Your task to perform on an android device: change text size in settings app Image 0: 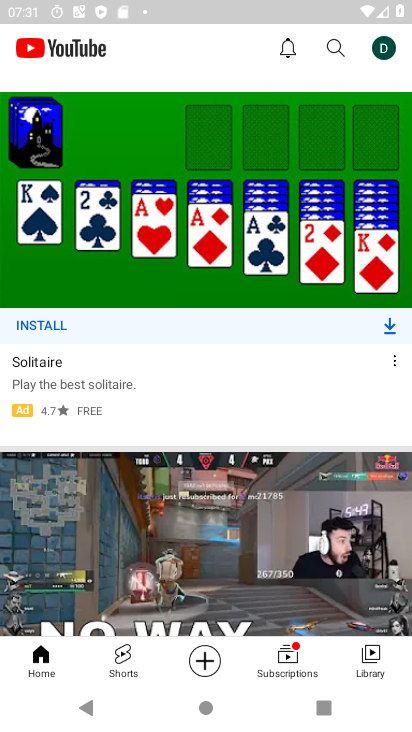
Step 0: press home button
Your task to perform on an android device: change text size in settings app Image 1: 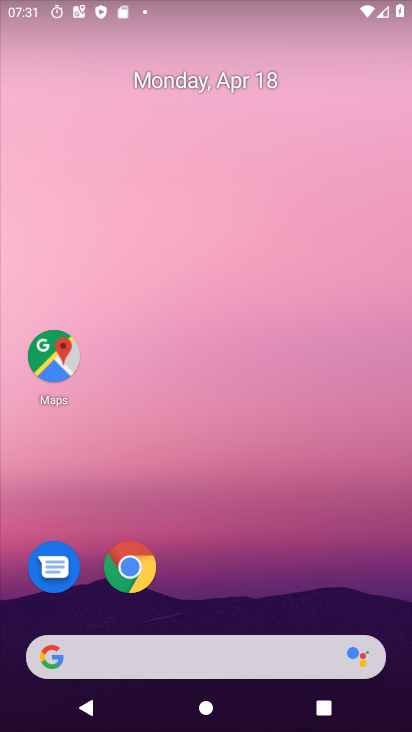
Step 1: drag from (307, 565) to (225, 56)
Your task to perform on an android device: change text size in settings app Image 2: 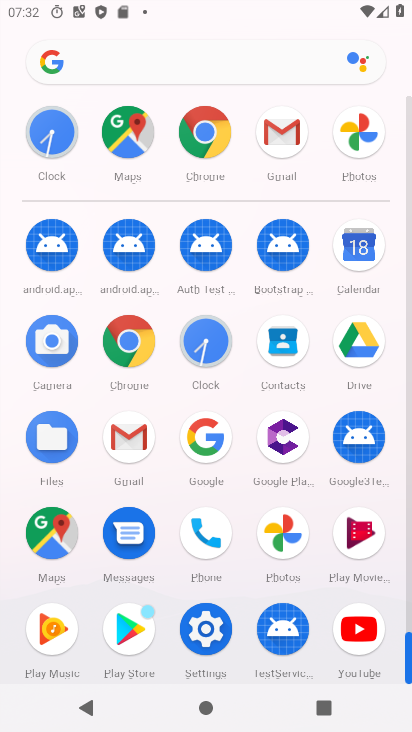
Step 2: click (204, 636)
Your task to perform on an android device: change text size in settings app Image 3: 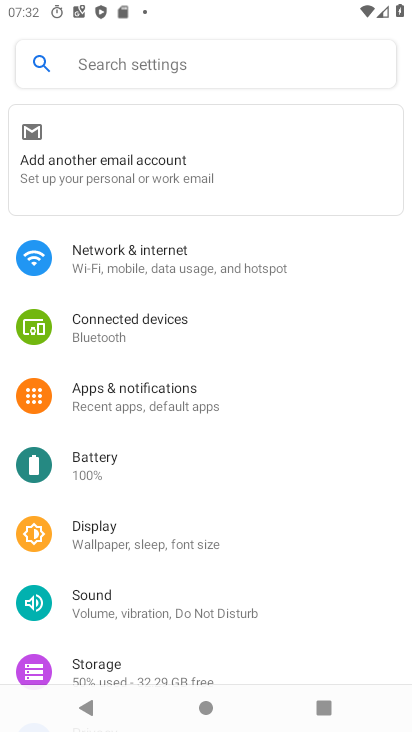
Step 3: click (150, 534)
Your task to perform on an android device: change text size in settings app Image 4: 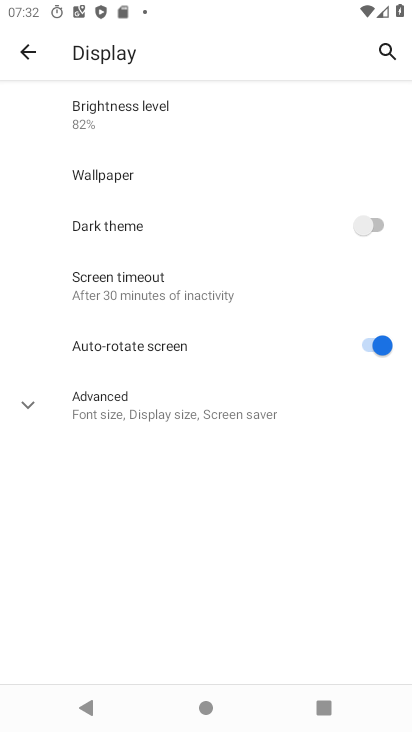
Step 4: click (167, 409)
Your task to perform on an android device: change text size in settings app Image 5: 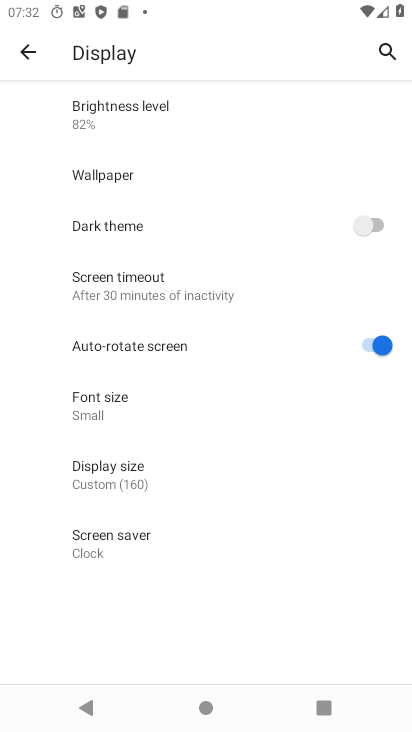
Step 5: click (167, 409)
Your task to perform on an android device: change text size in settings app Image 6: 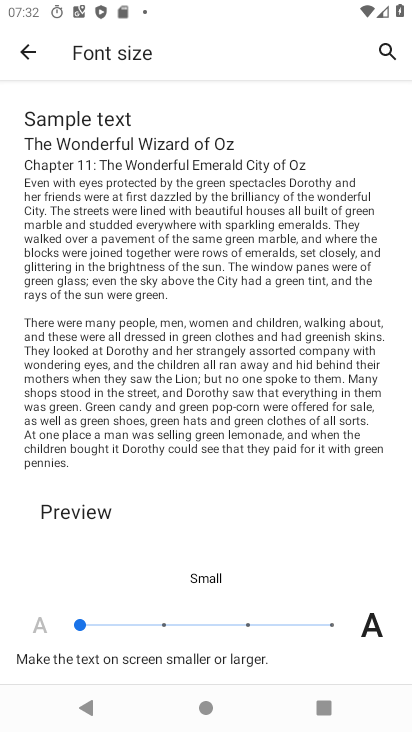
Step 6: click (366, 619)
Your task to perform on an android device: change text size in settings app Image 7: 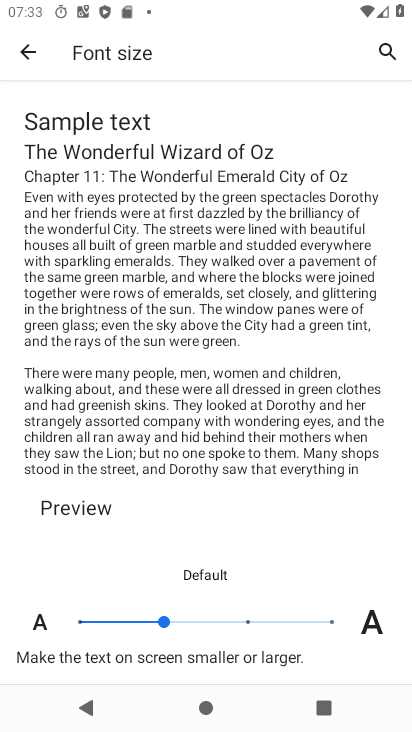
Step 7: task complete